Your task to perform on an android device: Go to location settings Image 0: 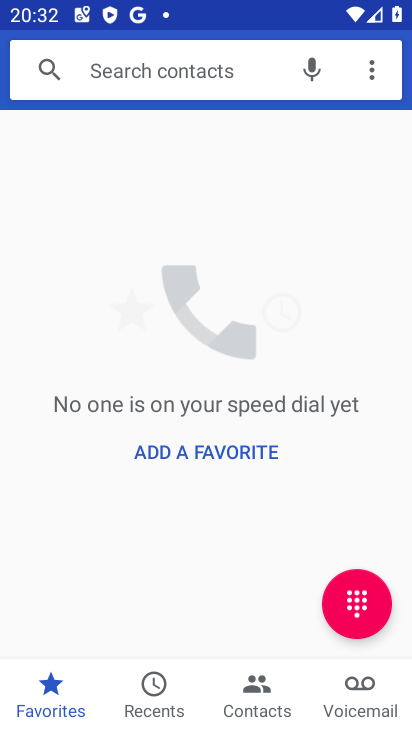
Step 0: press home button
Your task to perform on an android device: Go to location settings Image 1: 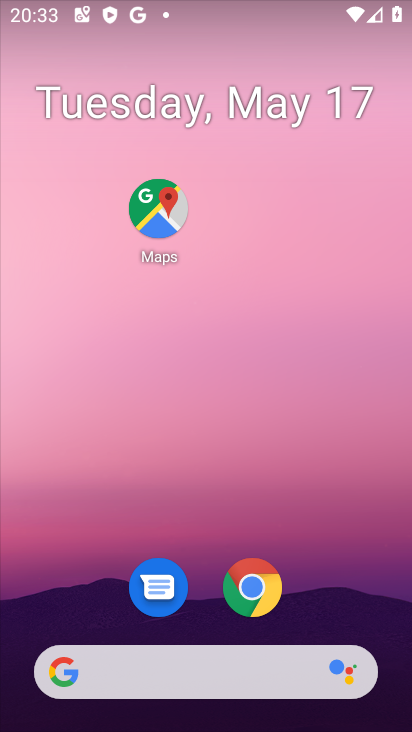
Step 1: drag from (90, 404) to (191, 216)
Your task to perform on an android device: Go to location settings Image 2: 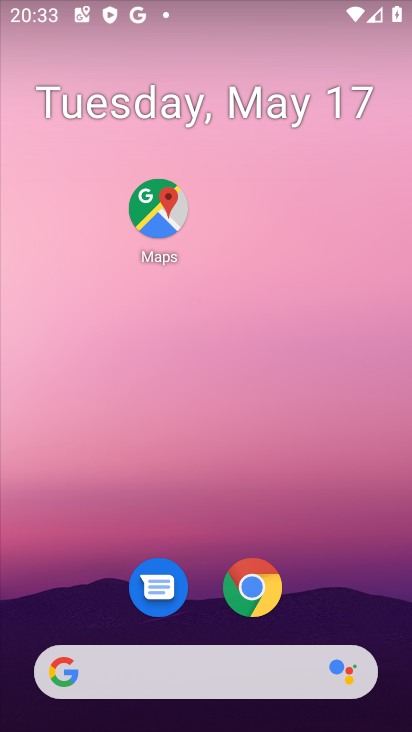
Step 2: drag from (11, 709) to (244, 205)
Your task to perform on an android device: Go to location settings Image 3: 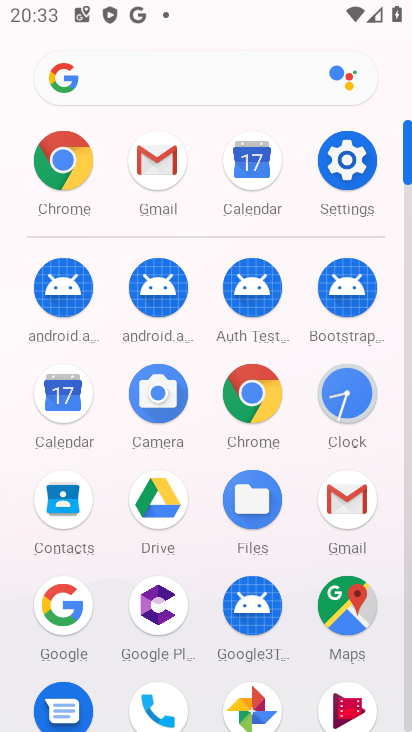
Step 3: click (360, 160)
Your task to perform on an android device: Go to location settings Image 4: 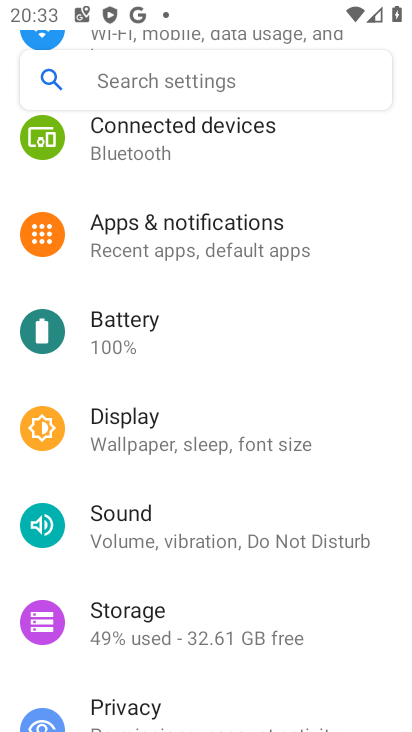
Step 4: drag from (99, 659) to (201, 283)
Your task to perform on an android device: Go to location settings Image 5: 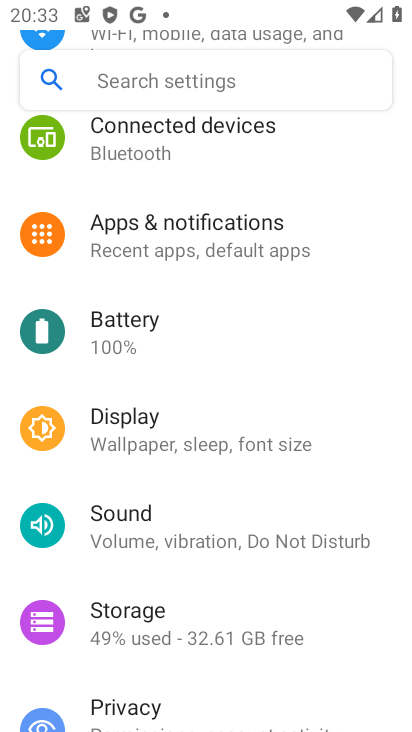
Step 5: drag from (1, 662) to (145, 310)
Your task to perform on an android device: Go to location settings Image 6: 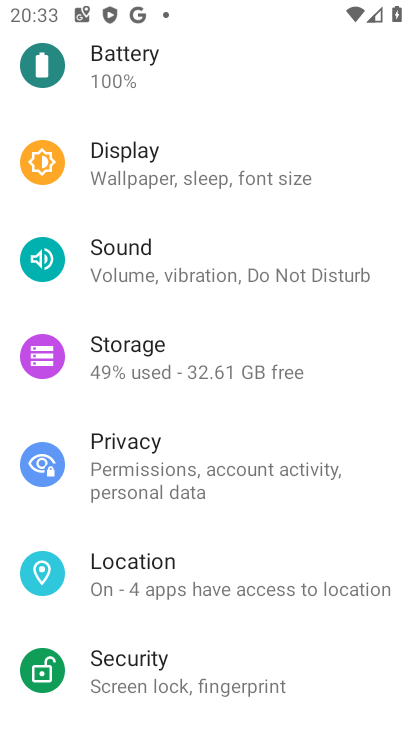
Step 6: click (165, 568)
Your task to perform on an android device: Go to location settings Image 7: 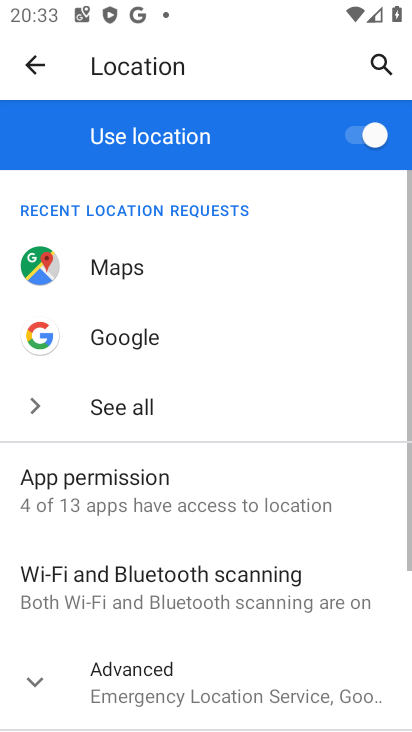
Step 7: task complete